Your task to perform on an android device: stop showing notifications on the lock screen Image 0: 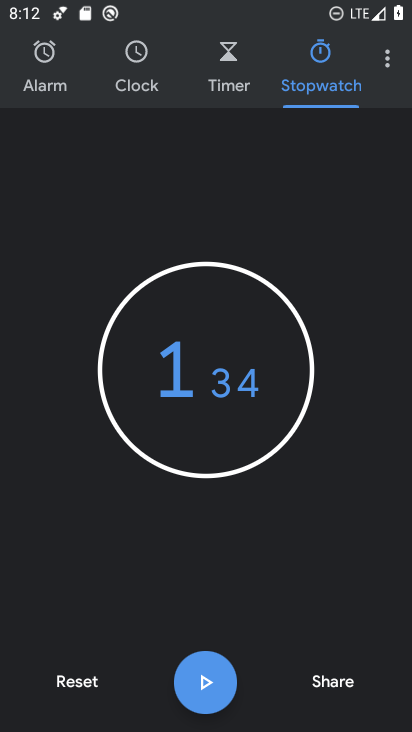
Step 0: press home button
Your task to perform on an android device: stop showing notifications on the lock screen Image 1: 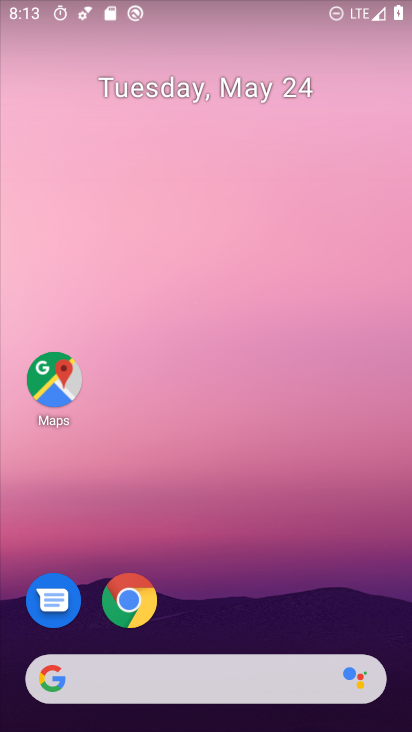
Step 1: drag from (207, 609) to (207, 63)
Your task to perform on an android device: stop showing notifications on the lock screen Image 2: 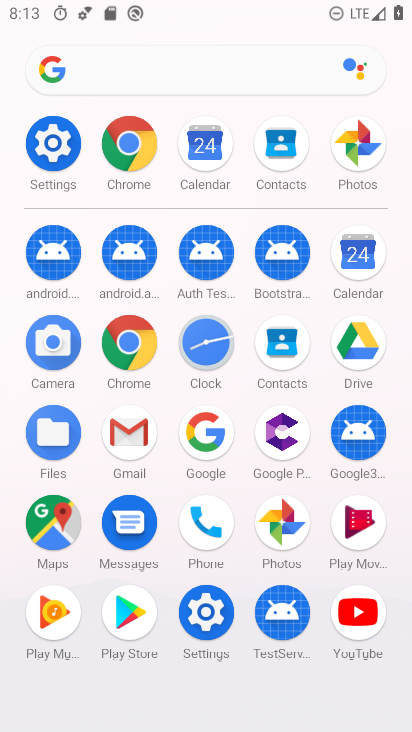
Step 2: click (193, 623)
Your task to perform on an android device: stop showing notifications on the lock screen Image 3: 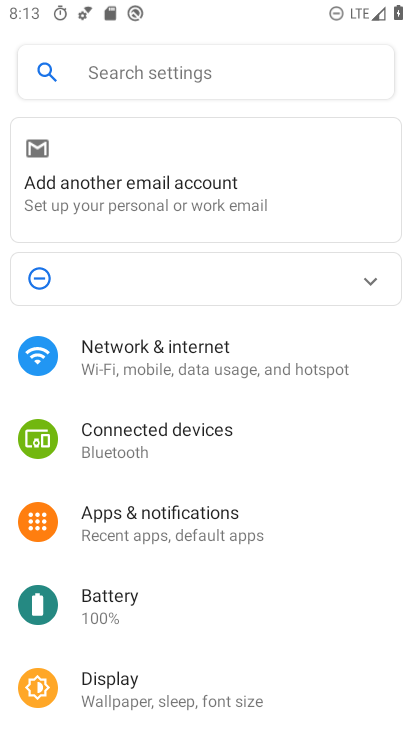
Step 3: click (175, 515)
Your task to perform on an android device: stop showing notifications on the lock screen Image 4: 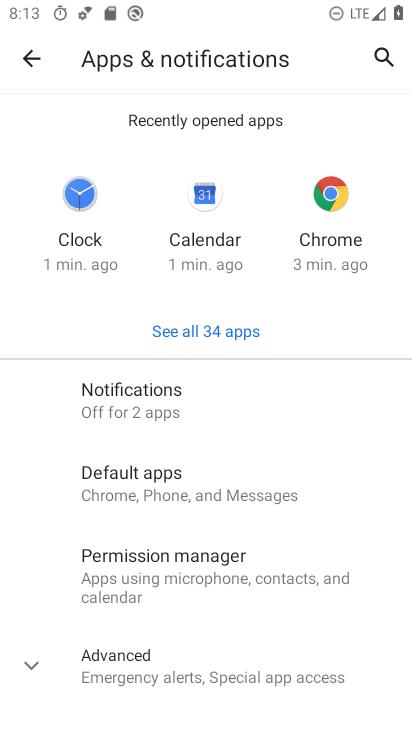
Step 4: click (111, 401)
Your task to perform on an android device: stop showing notifications on the lock screen Image 5: 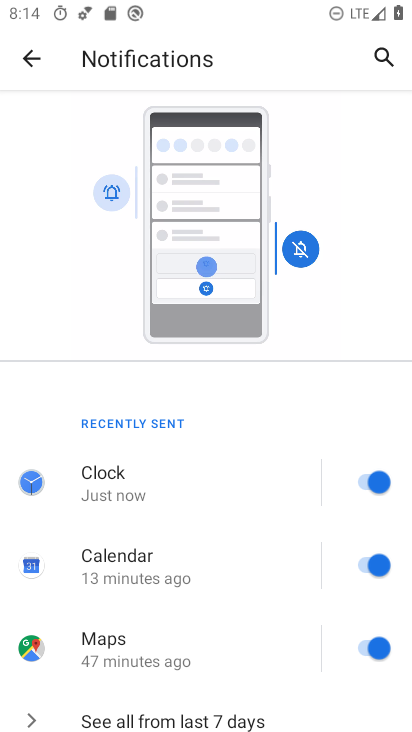
Step 5: drag from (165, 692) to (202, 305)
Your task to perform on an android device: stop showing notifications on the lock screen Image 6: 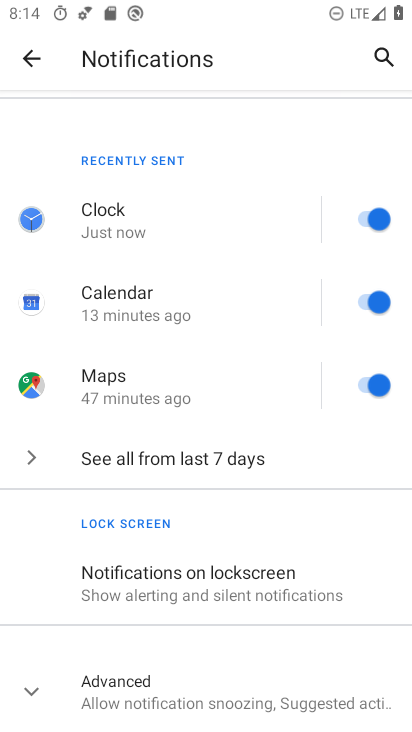
Step 6: click (227, 581)
Your task to perform on an android device: stop showing notifications on the lock screen Image 7: 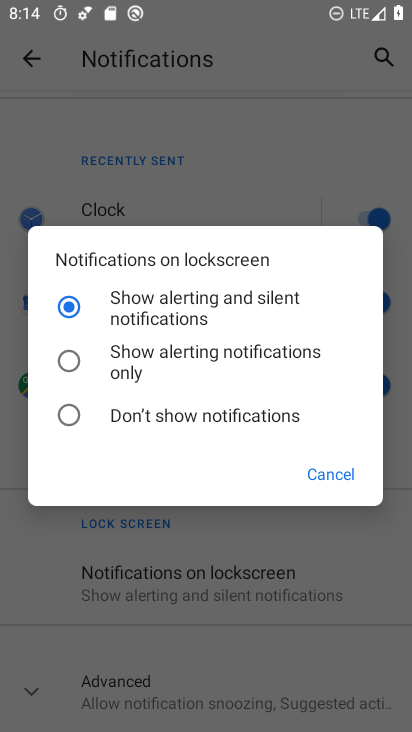
Step 7: click (55, 408)
Your task to perform on an android device: stop showing notifications on the lock screen Image 8: 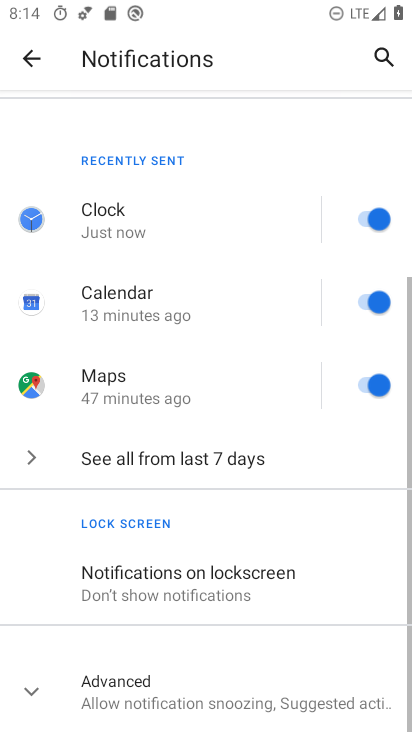
Step 8: task complete